Your task to perform on an android device: turn on priority inbox in the gmail app Image 0: 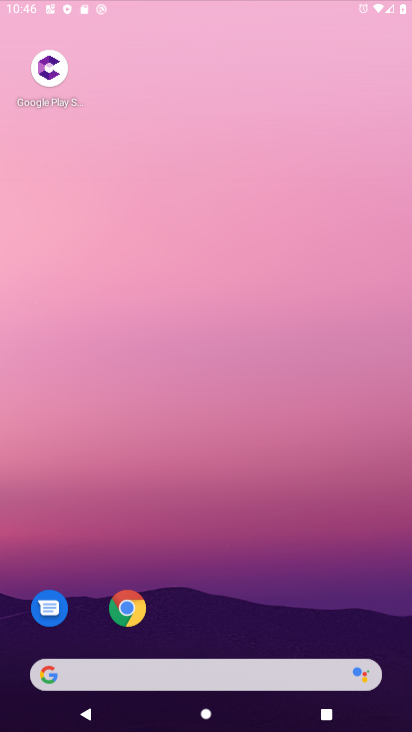
Step 0: click (231, 251)
Your task to perform on an android device: turn on priority inbox in the gmail app Image 1: 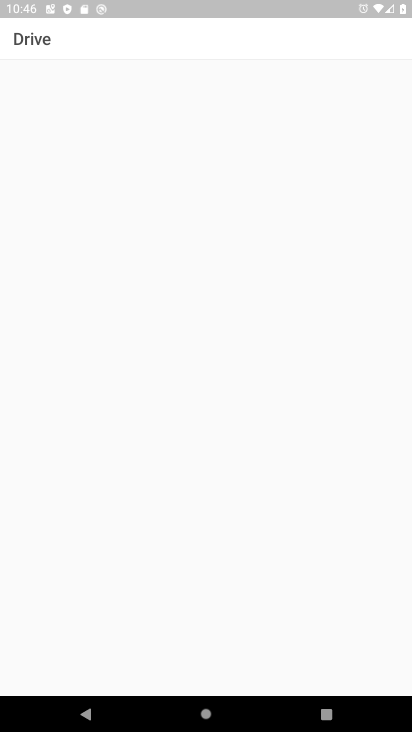
Step 1: press home button
Your task to perform on an android device: turn on priority inbox in the gmail app Image 2: 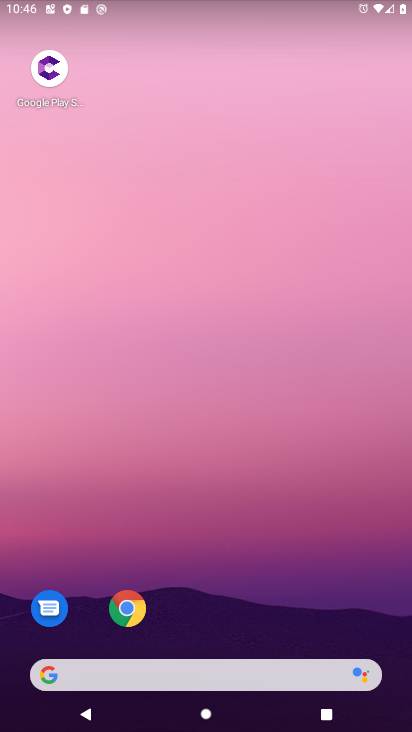
Step 2: drag from (260, 724) to (274, 214)
Your task to perform on an android device: turn on priority inbox in the gmail app Image 3: 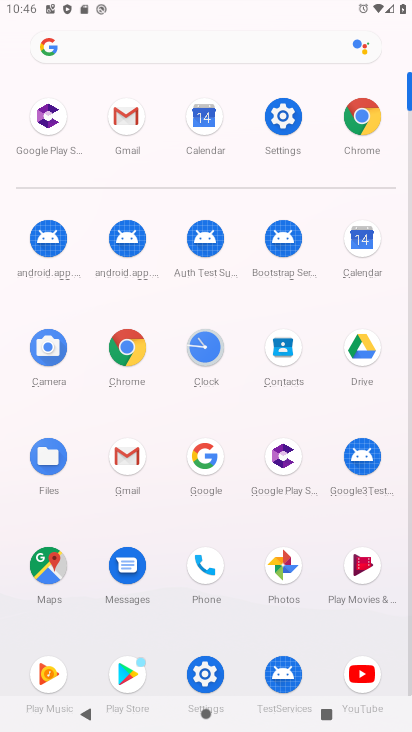
Step 3: click (127, 459)
Your task to perform on an android device: turn on priority inbox in the gmail app Image 4: 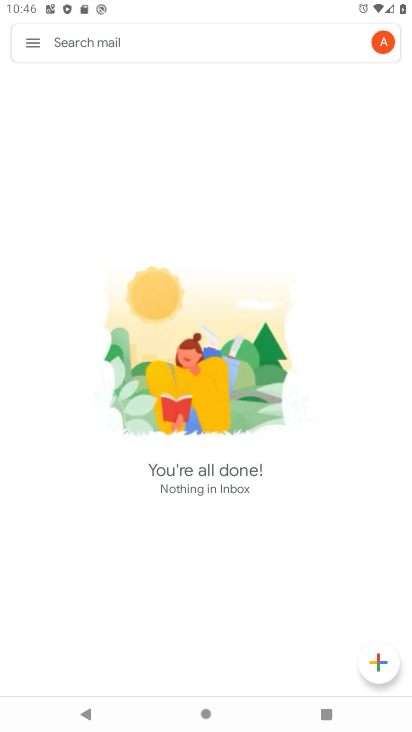
Step 4: click (32, 43)
Your task to perform on an android device: turn on priority inbox in the gmail app Image 5: 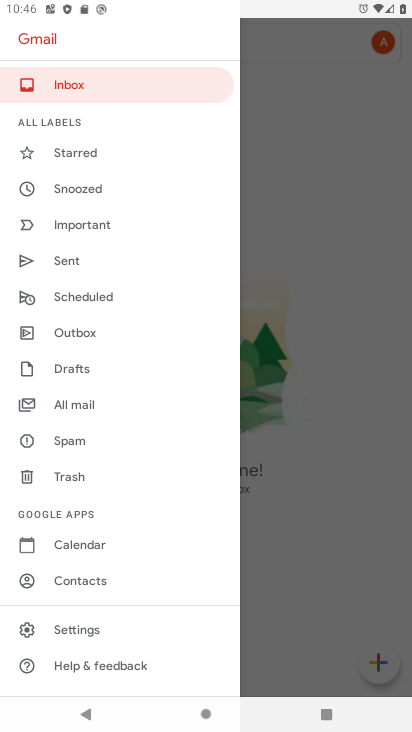
Step 5: click (58, 629)
Your task to perform on an android device: turn on priority inbox in the gmail app Image 6: 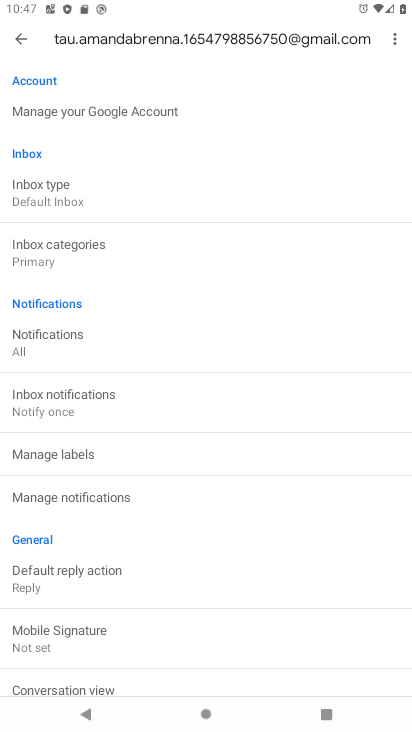
Step 6: click (55, 195)
Your task to perform on an android device: turn on priority inbox in the gmail app Image 7: 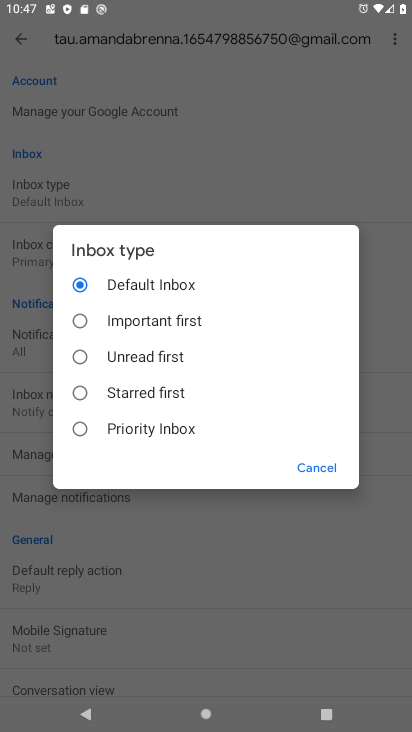
Step 7: click (83, 429)
Your task to perform on an android device: turn on priority inbox in the gmail app Image 8: 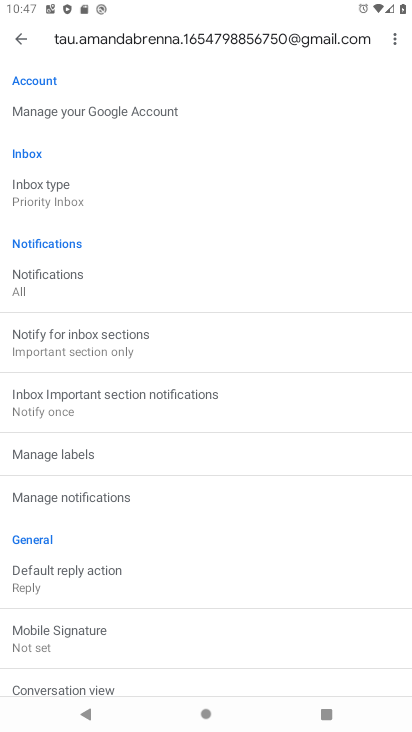
Step 8: task complete